Your task to perform on an android device: Open Google Maps Image 0: 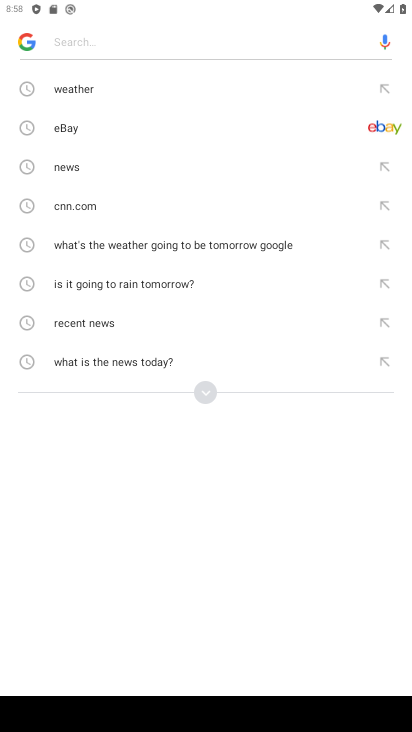
Step 0: press back button
Your task to perform on an android device: Open Google Maps Image 1: 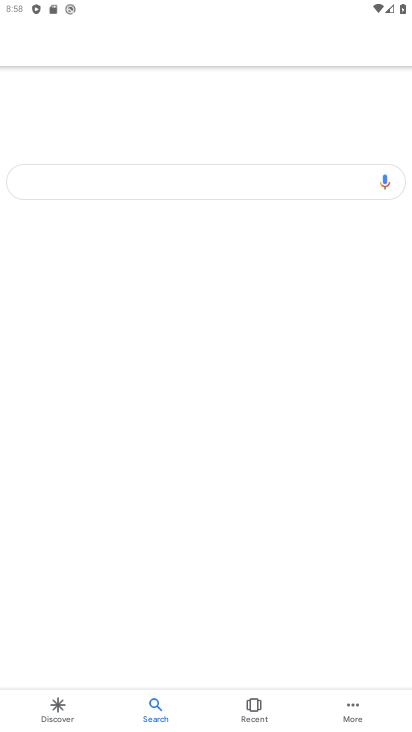
Step 1: press back button
Your task to perform on an android device: Open Google Maps Image 2: 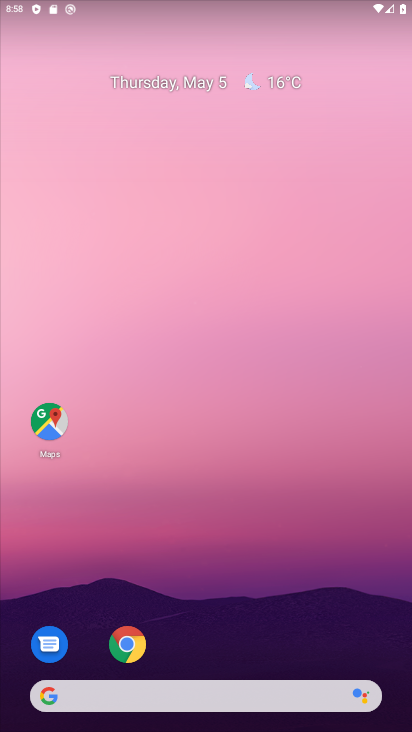
Step 2: click (133, 426)
Your task to perform on an android device: Open Google Maps Image 3: 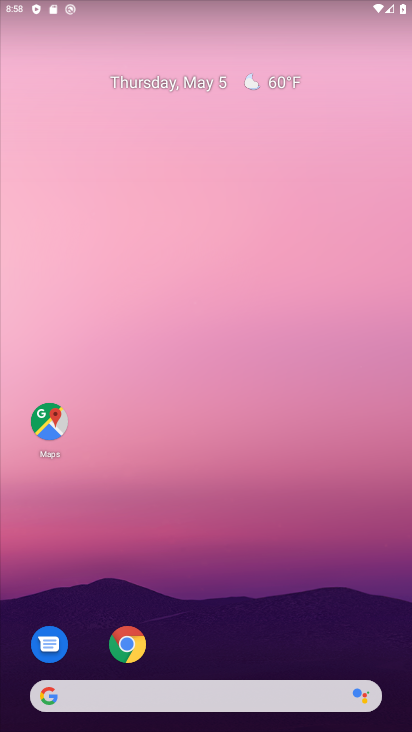
Step 3: click (43, 429)
Your task to perform on an android device: Open Google Maps Image 4: 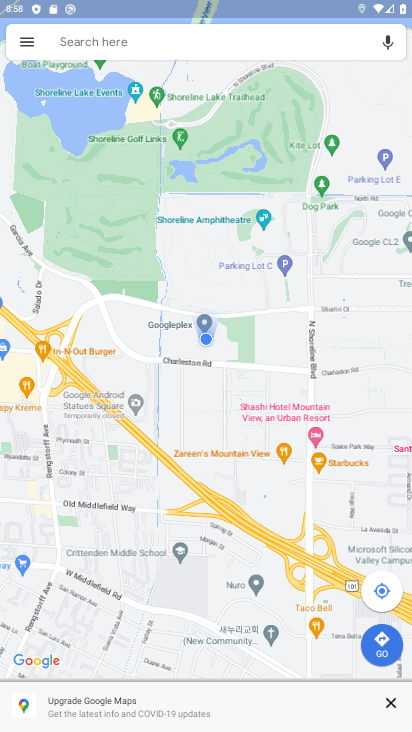
Step 4: task complete